Your task to perform on an android device: check battery use Image 0: 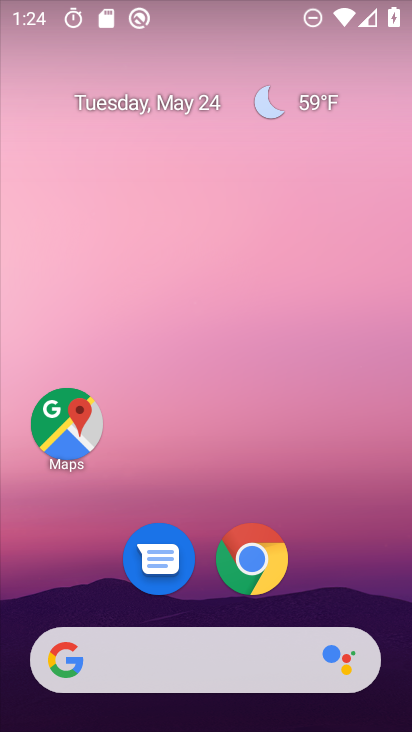
Step 0: drag from (395, 689) to (307, 248)
Your task to perform on an android device: check battery use Image 1: 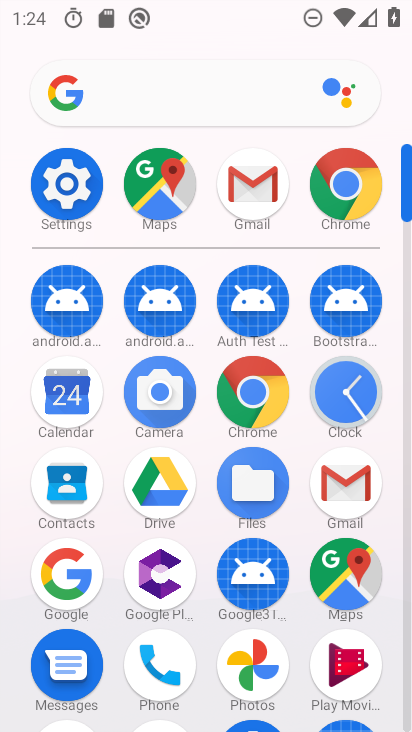
Step 1: click (30, 180)
Your task to perform on an android device: check battery use Image 2: 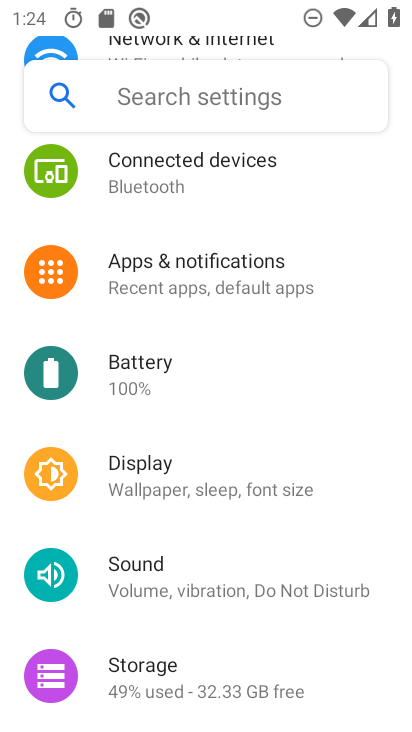
Step 2: click (126, 371)
Your task to perform on an android device: check battery use Image 3: 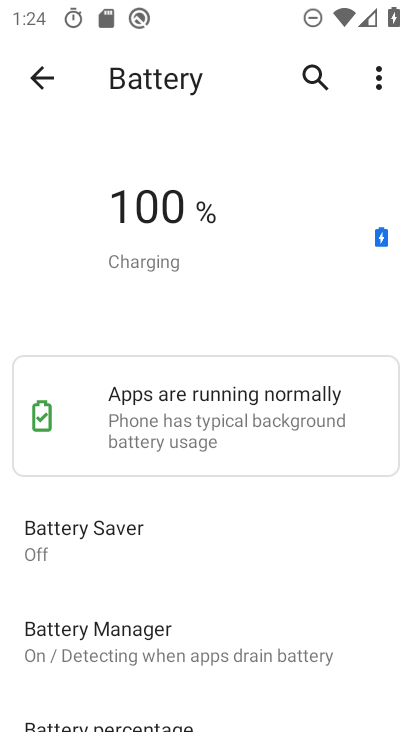
Step 3: click (379, 71)
Your task to perform on an android device: check battery use Image 4: 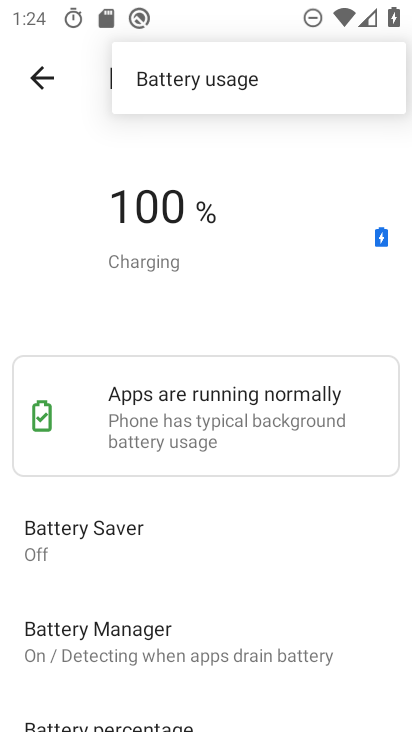
Step 4: click (228, 81)
Your task to perform on an android device: check battery use Image 5: 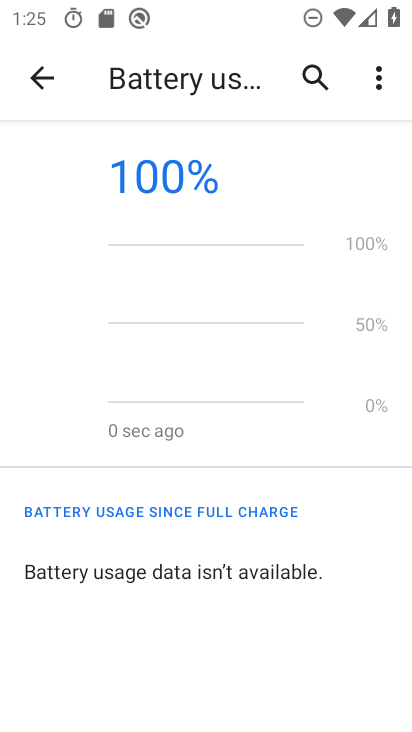
Step 5: task complete